Your task to perform on an android device: Search for razer thresher on costco, select the first entry, add it to the cart, then select checkout. Image 0: 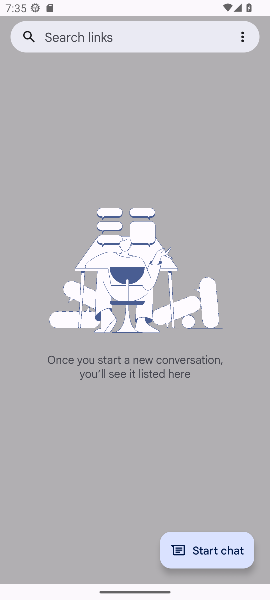
Step 0: press home button
Your task to perform on an android device: Search for razer thresher on costco, select the first entry, add it to the cart, then select checkout. Image 1: 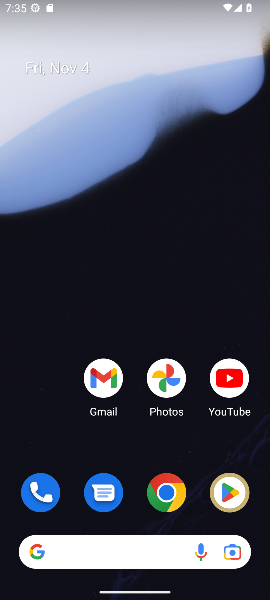
Step 1: drag from (142, 454) to (110, 25)
Your task to perform on an android device: Search for razer thresher on costco, select the first entry, add it to the cart, then select checkout. Image 2: 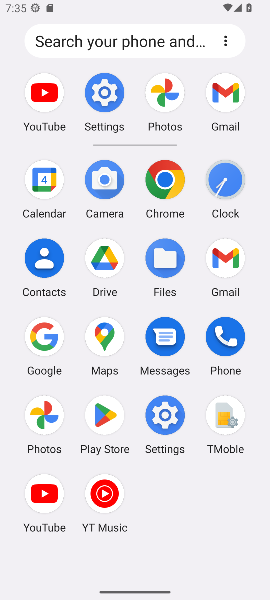
Step 2: click (161, 183)
Your task to perform on an android device: Search for razer thresher on costco, select the first entry, add it to the cart, then select checkout. Image 3: 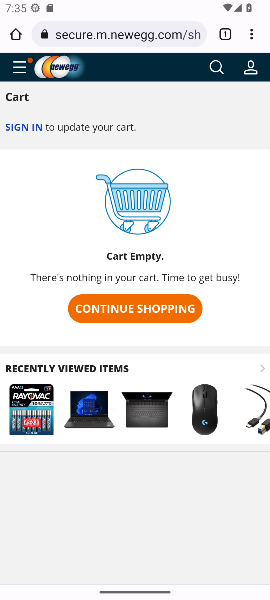
Step 3: click (142, 31)
Your task to perform on an android device: Search for razer thresher on costco, select the first entry, add it to the cart, then select checkout. Image 4: 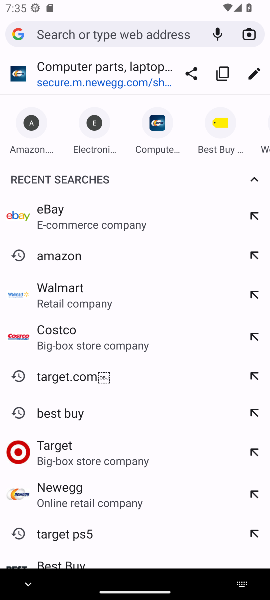
Step 4: type "costco.com"
Your task to perform on an android device: Search for razer thresher on costco, select the first entry, add it to the cart, then select checkout. Image 5: 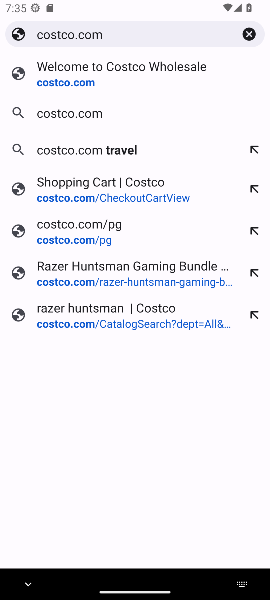
Step 5: press enter
Your task to perform on an android device: Search for razer thresher on costco, select the first entry, add it to the cart, then select checkout. Image 6: 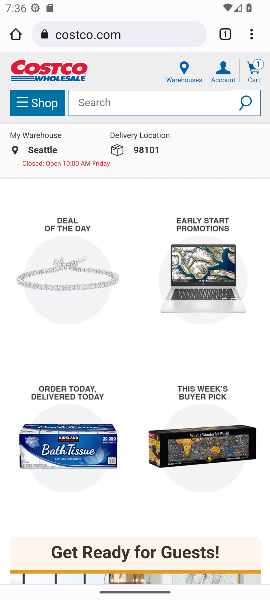
Step 6: click (166, 110)
Your task to perform on an android device: Search for razer thresher on costco, select the first entry, add it to the cart, then select checkout. Image 7: 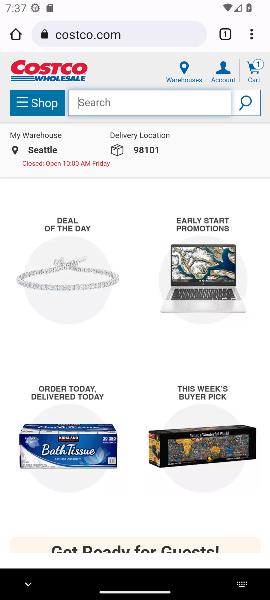
Step 7: type "razer thresher"
Your task to perform on an android device: Search for razer thresher on costco, select the first entry, add it to the cart, then select checkout. Image 8: 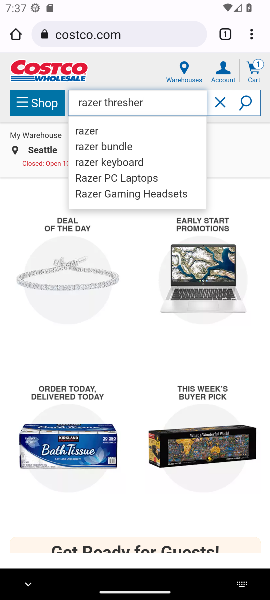
Step 8: press enter
Your task to perform on an android device: Search for razer thresher on costco, select the first entry, add it to the cart, then select checkout. Image 9: 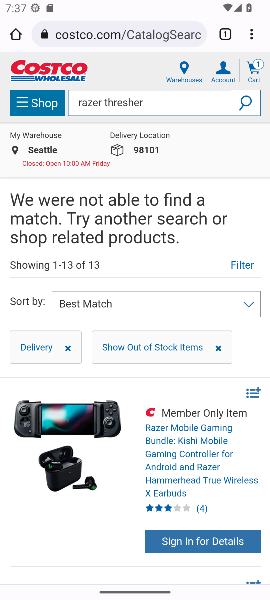
Step 9: task complete